Your task to perform on an android device: turn on the 12-hour format for clock Image 0: 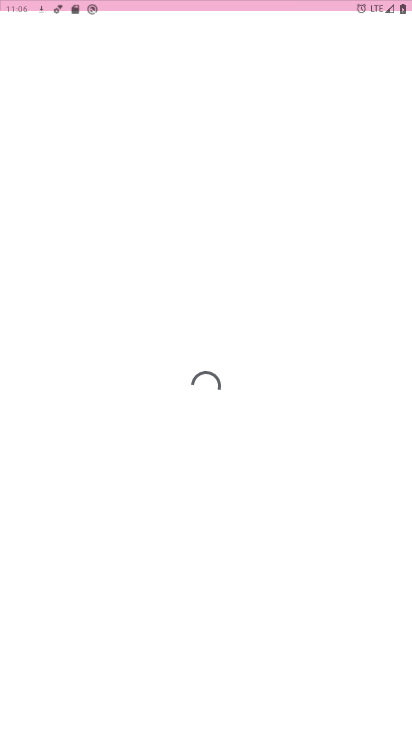
Step 0: click (186, 275)
Your task to perform on an android device: turn on the 12-hour format for clock Image 1: 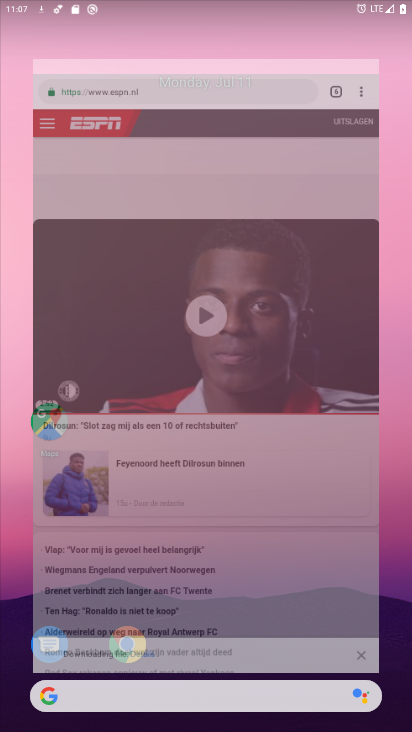
Step 1: drag from (258, 588) to (254, 178)
Your task to perform on an android device: turn on the 12-hour format for clock Image 2: 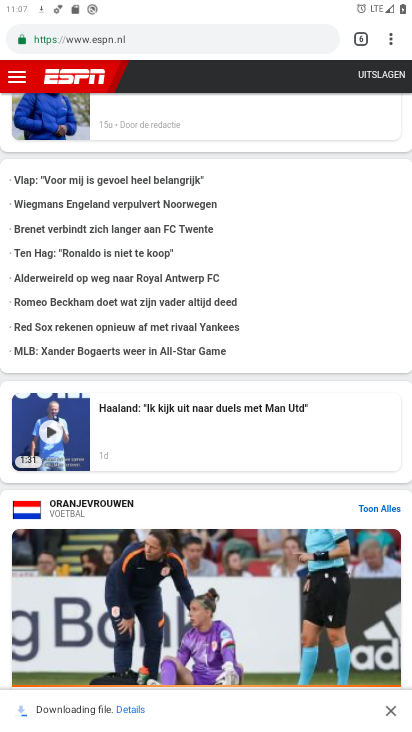
Step 2: press home button
Your task to perform on an android device: turn on the 12-hour format for clock Image 3: 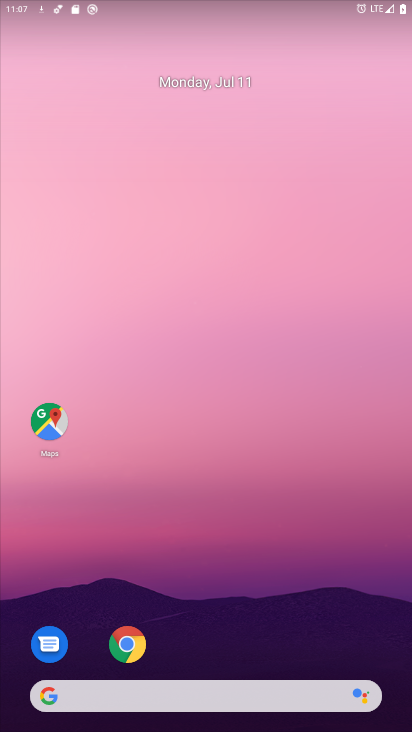
Step 3: drag from (211, 683) to (215, 196)
Your task to perform on an android device: turn on the 12-hour format for clock Image 4: 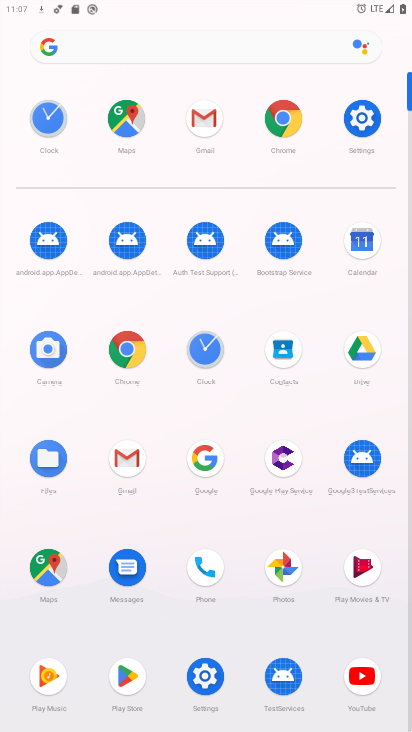
Step 4: click (205, 347)
Your task to perform on an android device: turn on the 12-hour format for clock Image 5: 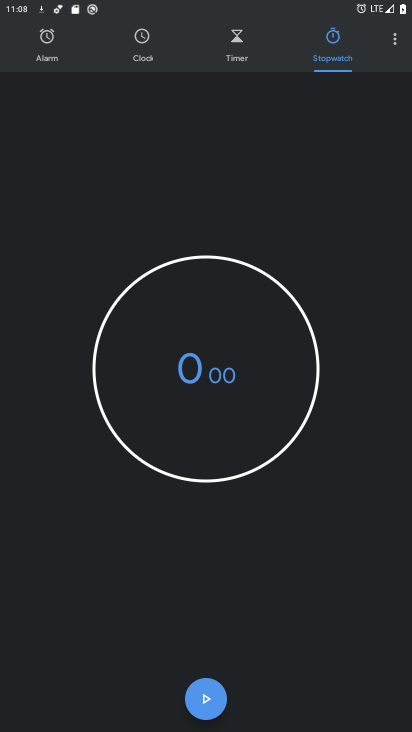
Step 5: click (403, 56)
Your task to perform on an android device: turn on the 12-hour format for clock Image 6: 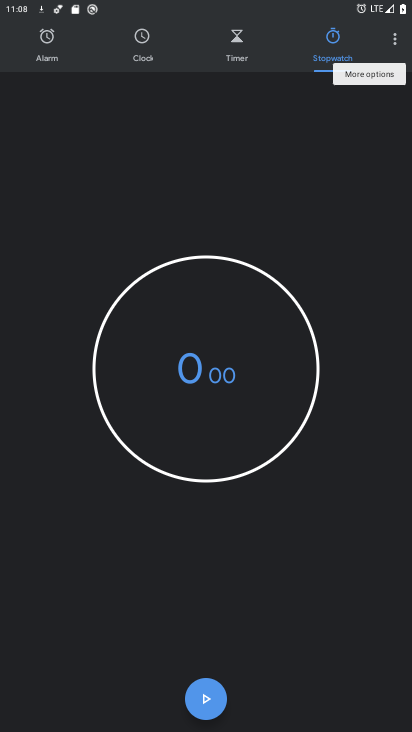
Step 6: click (400, 51)
Your task to perform on an android device: turn on the 12-hour format for clock Image 7: 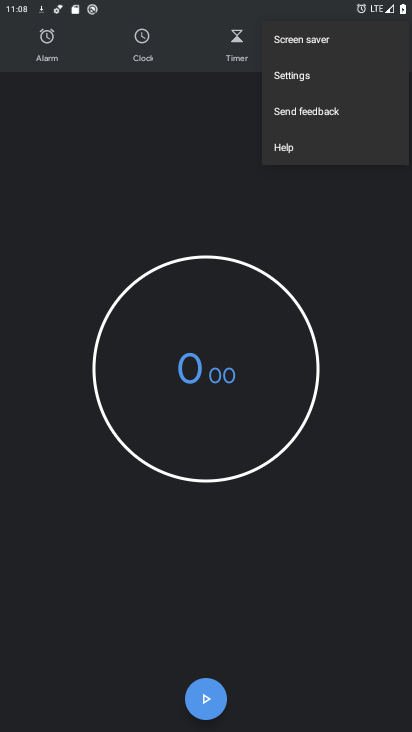
Step 7: click (315, 74)
Your task to perform on an android device: turn on the 12-hour format for clock Image 8: 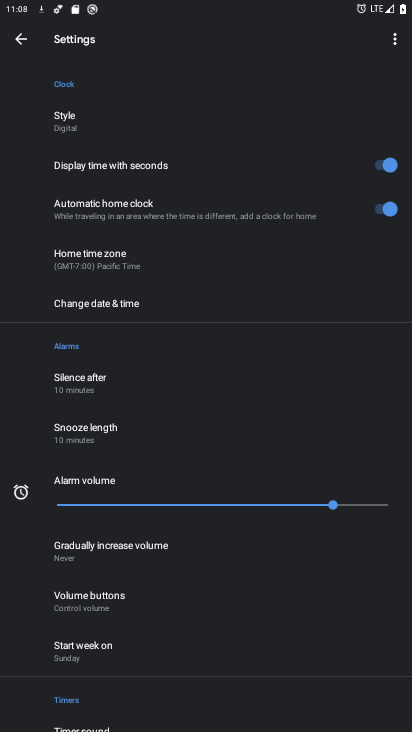
Step 8: click (135, 302)
Your task to perform on an android device: turn on the 12-hour format for clock Image 9: 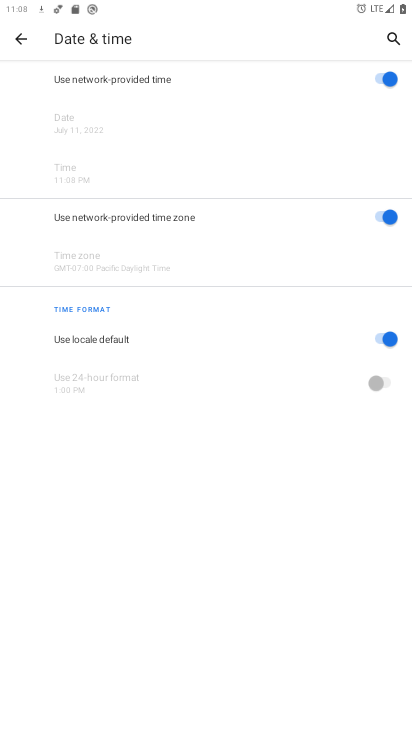
Step 9: click (387, 350)
Your task to perform on an android device: turn on the 12-hour format for clock Image 10: 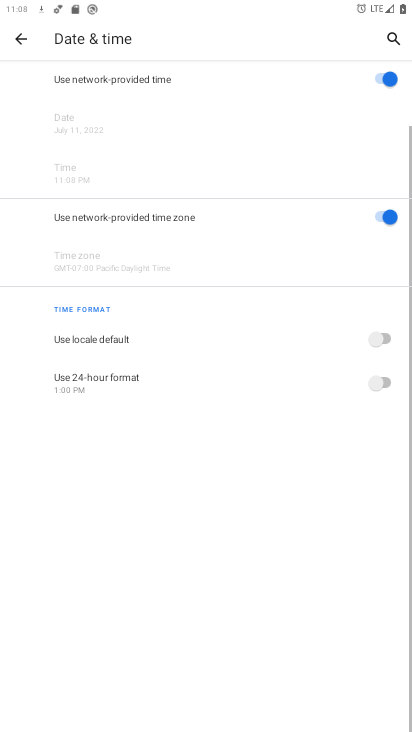
Step 10: click (379, 369)
Your task to perform on an android device: turn on the 12-hour format for clock Image 11: 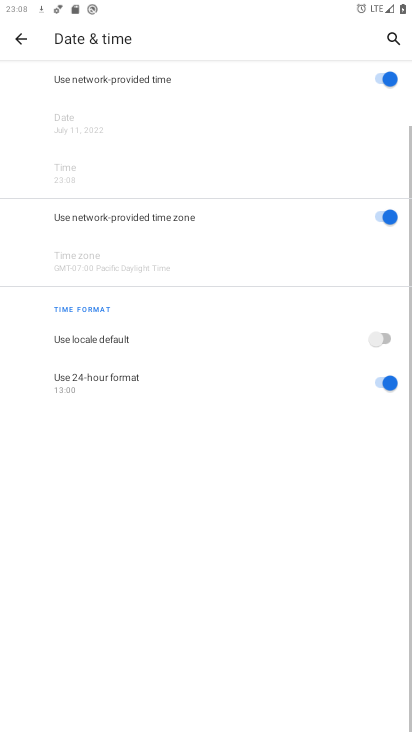
Step 11: task complete